Your task to perform on an android device: change text size in settings app Image 0: 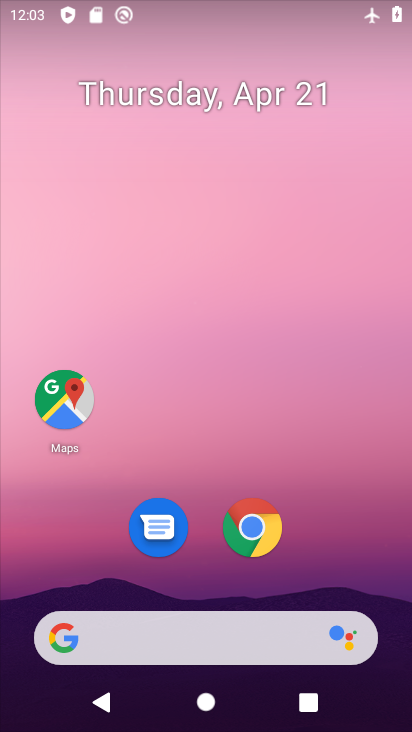
Step 0: drag from (344, 579) to (263, 17)
Your task to perform on an android device: change text size in settings app Image 1: 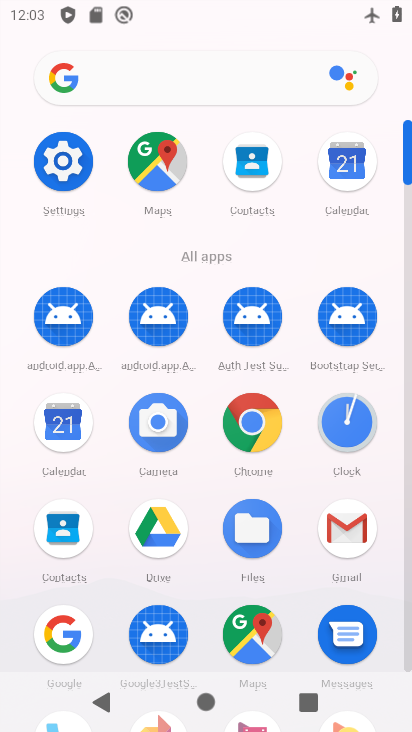
Step 1: click (53, 174)
Your task to perform on an android device: change text size in settings app Image 2: 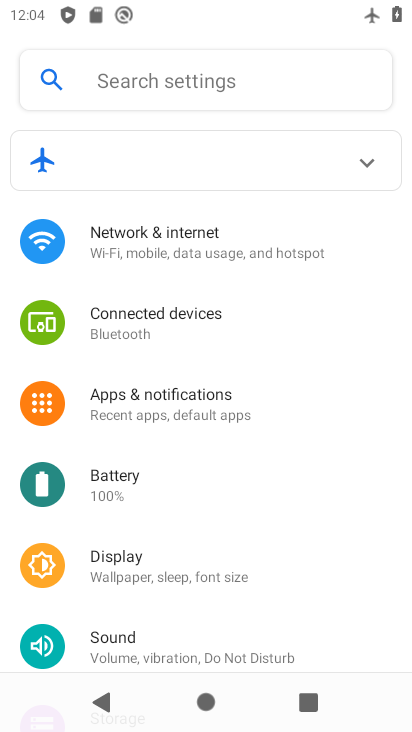
Step 2: click (157, 558)
Your task to perform on an android device: change text size in settings app Image 3: 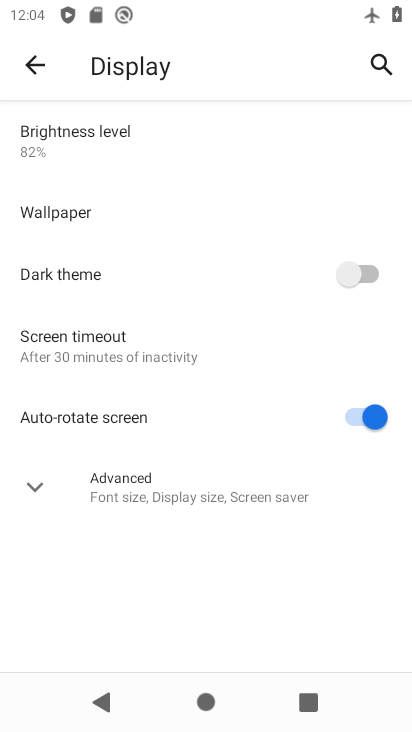
Step 3: click (24, 474)
Your task to perform on an android device: change text size in settings app Image 4: 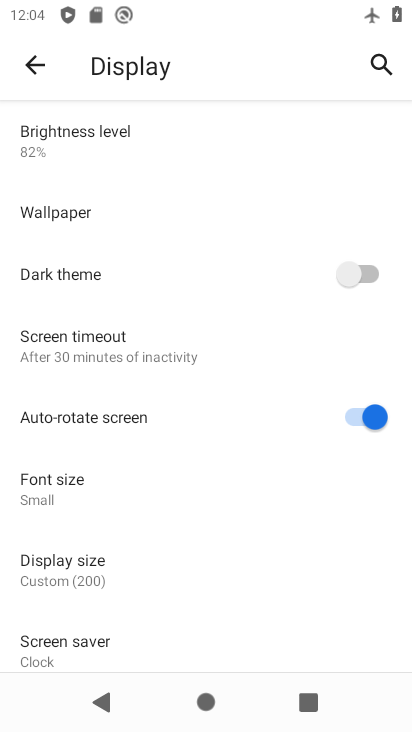
Step 4: click (125, 499)
Your task to perform on an android device: change text size in settings app Image 5: 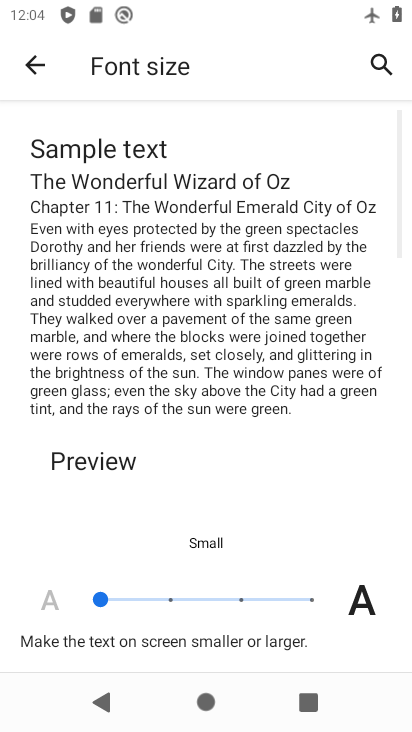
Step 5: click (167, 597)
Your task to perform on an android device: change text size in settings app Image 6: 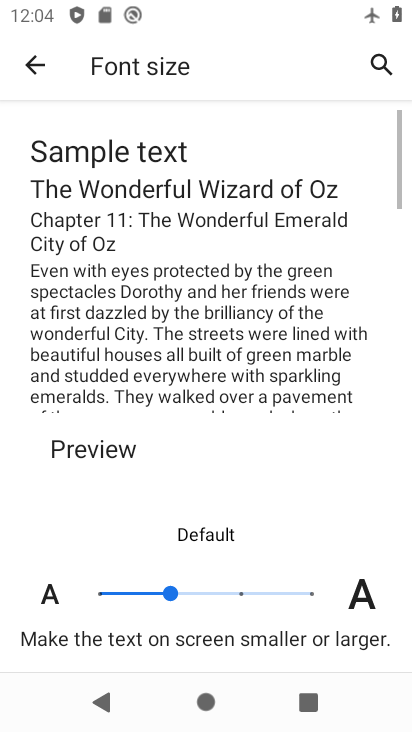
Step 6: task complete